Your task to perform on an android device: Clear all items from cart on amazon. Add "bose quietcomfort 35" to the cart on amazon, then select checkout. Image 0: 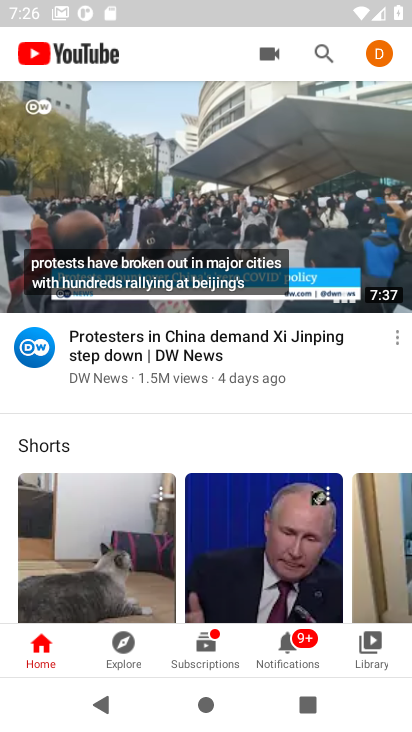
Step 0: press home button
Your task to perform on an android device: Clear all items from cart on amazon. Add "bose quietcomfort 35" to the cart on amazon, then select checkout. Image 1: 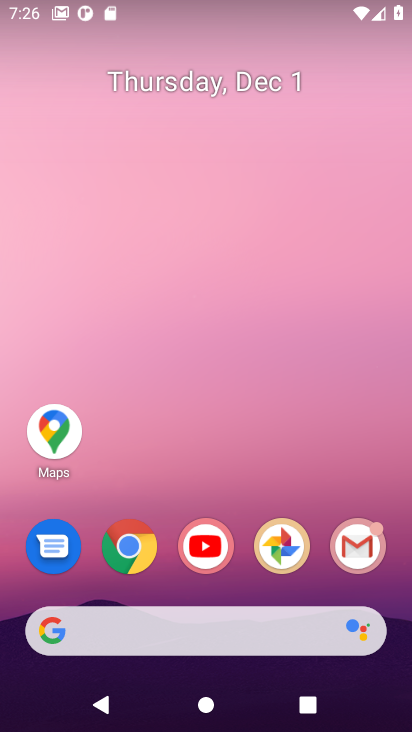
Step 1: click (126, 550)
Your task to perform on an android device: Clear all items from cart on amazon. Add "bose quietcomfort 35" to the cart on amazon, then select checkout. Image 2: 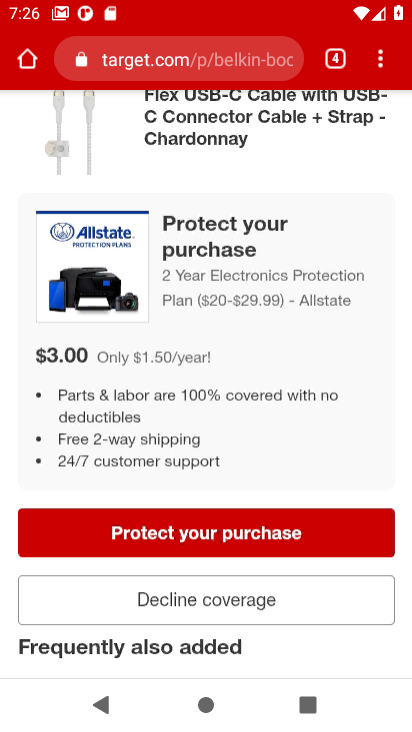
Step 2: click (178, 62)
Your task to perform on an android device: Clear all items from cart on amazon. Add "bose quietcomfort 35" to the cart on amazon, then select checkout. Image 3: 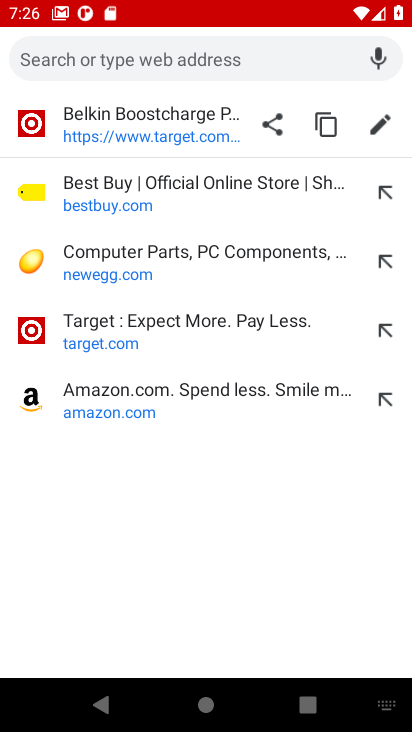
Step 3: click (95, 395)
Your task to perform on an android device: Clear all items from cart on amazon. Add "bose quietcomfort 35" to the cart on amazon, then select checkout. Image 4: 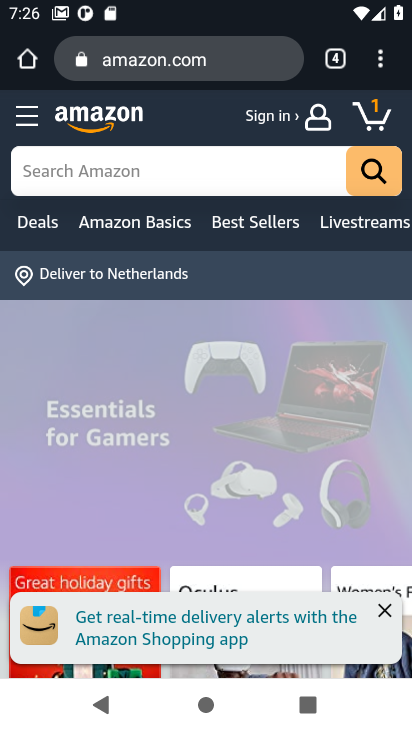
Step 4: click (375, 119)
Your task to perform on an android device: Clear all items from cart on amazon. Add "bose quietcomfort 35" to the cart on amazon, then select checkout. Image 5: 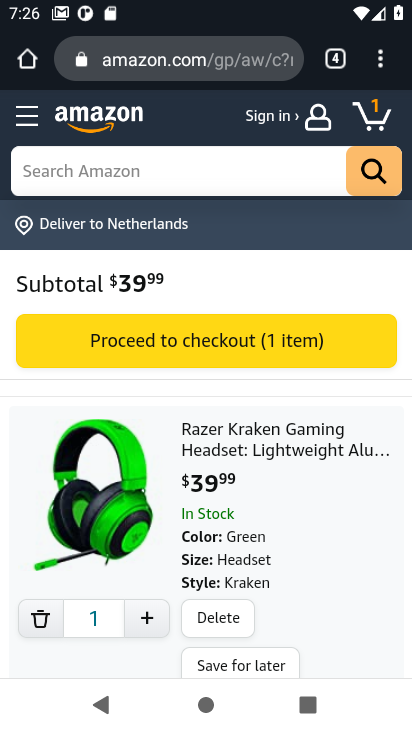
Step 5: drag from (295, 531) to (315, 313)
Your task to perform on an android device: Clear all items from cart on amazon. Add "bose quietcomfort 35" to the cart on amazon, then select checkout. Image 6: 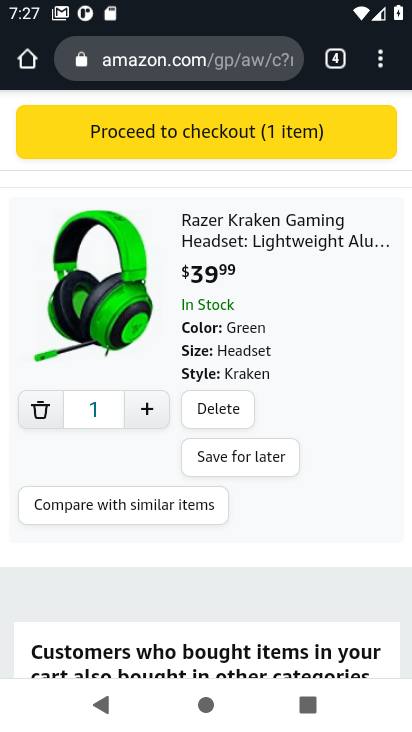
Step 6: click (216, 408)
Your task to perform on an android device: Clear all items from cart on amazon. Add "bose quietcomfort 35" to the cart on amazon, then select checkout. Image 7: 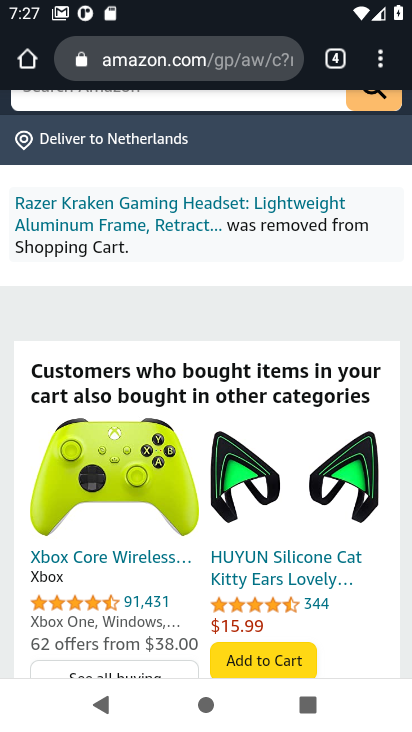
Step 7: drag from (110, 256) to (137, 505)
Your task to perform on an android device: Clear all items from cart on amazon. Add "bose quietcomfort 35" to the cart on amazon, then select checkout. Image 8: 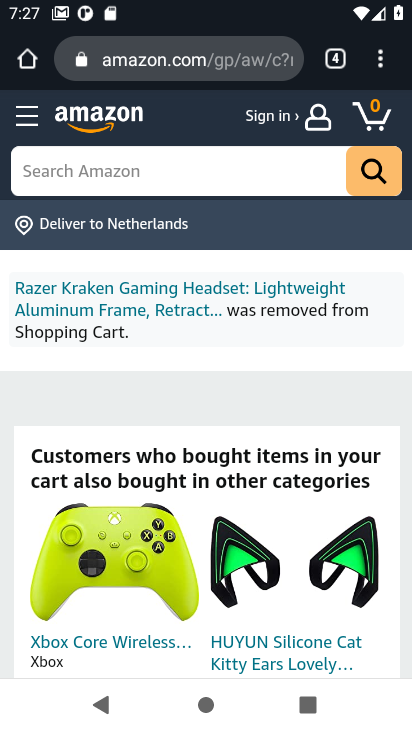
Step 8: click (63, 178)
Your task to perform on an android device: Clear all items from cart on amazon. Add "bose quietcomfort 35" to the cart on amazon, then select checkout. Image 9: 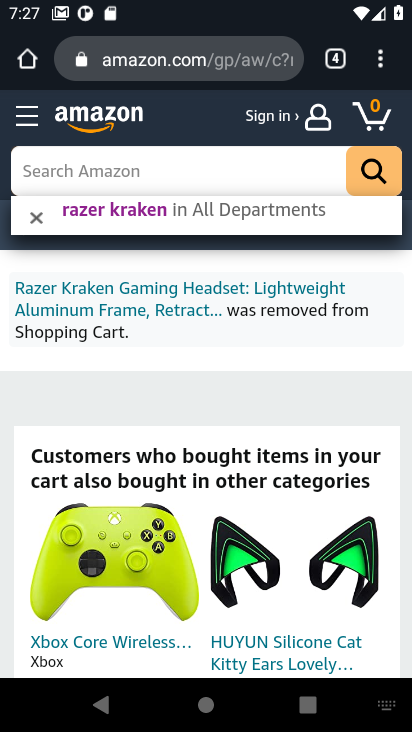
Step 9: type "bose quietcomfort 35"
Your task to perform on an android device: Clear all items from cart on amazon. Add "bose quietcomfort 35" to the cart on amazon, then select checkout. Image 10: 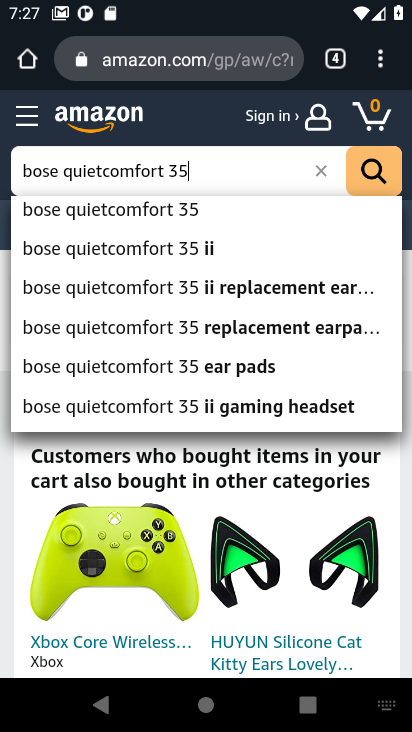
Step 10: click (149, 209)
Your task to perform on an android device: Clear all items from cart on amazon. Add "bose quietcomfort 35" to the cart on amazon, then select checkout. Image 11: 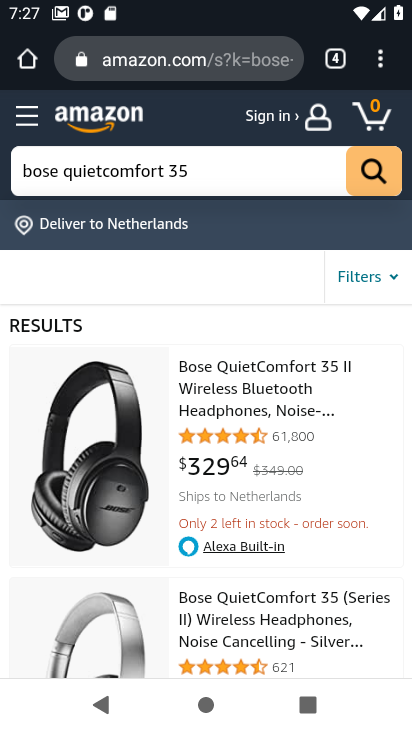
Step 11: drag from (194, 440) to (208, 346)
Your task to perform on an android device: Clear all items from cart on amazon. Add "bose quietcomfort 35" to the cart on amazon, then select checkout. Image 12: 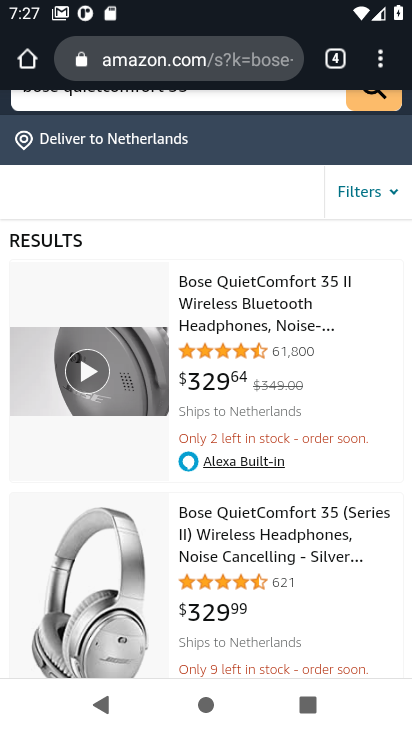
Step 12: click (213, 340)
Your task to perform on an android device: Clear all items from cart on amazon. Add "bose quietcomfort 35" to the cart on amazon, then select checkout. Image 13: 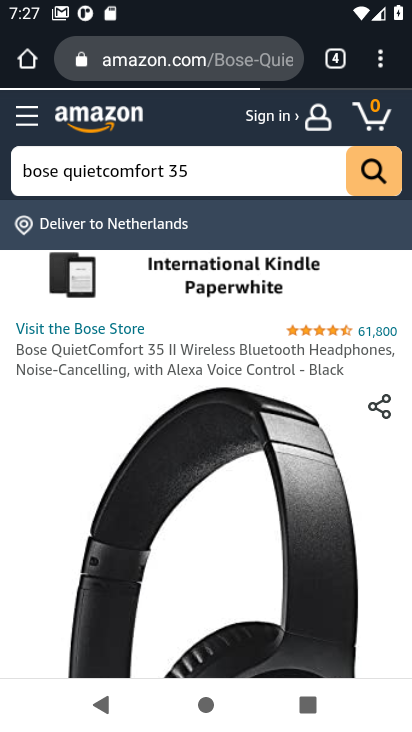
Step 13: drag from (160, 513) to (182, 298)
Your task to perform on an android device: Clear all items from cart on amazon. Add "bose quietcomfort 35" to the cart on amazon, then select checkout. Image 14: 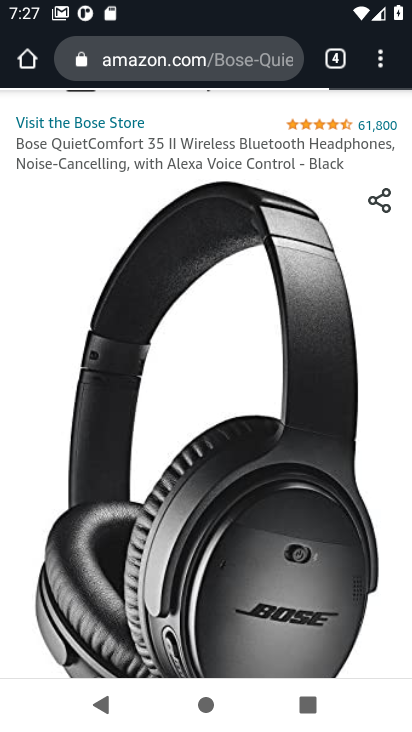
Step 14: drag from (169, 508) to (183, 269)
Your task to perform on an android device: Clear all items from cart on amazon. Add "bose quietcomfort 35" to the cart on amazon, then select checkout. Image 15: 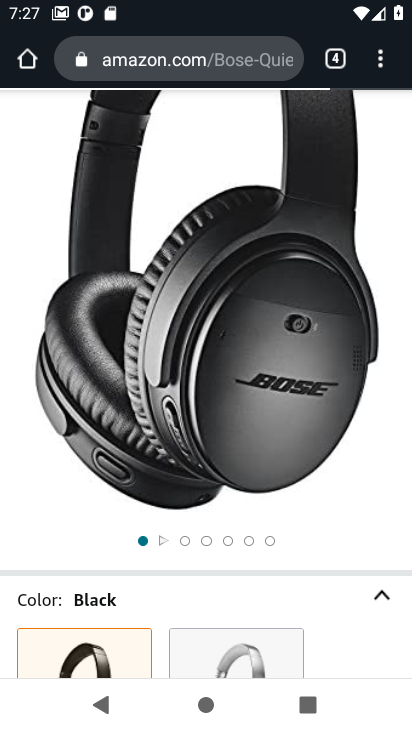
Step 15: drag from (166, 491) to (150, 249)
Your task to perform on an android device: Clear all items from cart on amazon. Add "bose quietcomfort 35" to the cart on amazon, then select checkout. Image 16: 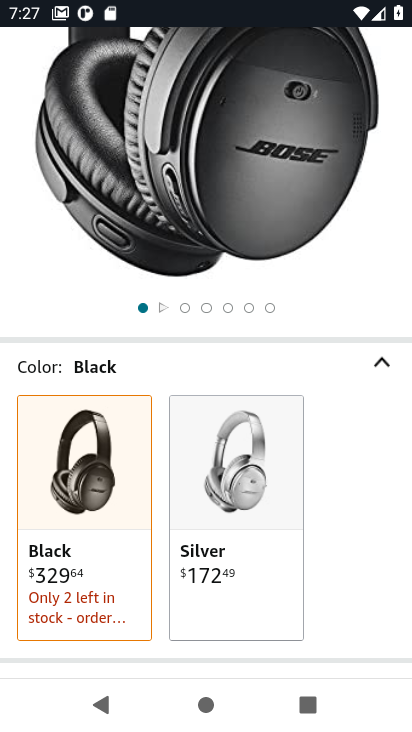
Step 16: drag from (178, 505) to (182, 265)
Your task to perform on an android device: Clear all items from cart on amazon. Add "bose quietcomfort 35" to the cart on amazon, then select checkout. Image 17: 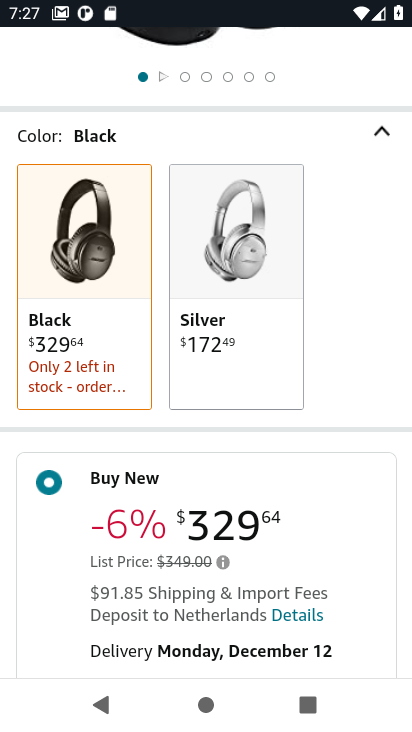
Step 17: drag from (203, 548) to (192, 223)
Your task to perform on an android device: Clear all items from cart on amazon. Add "bose quietcomfort 35" to the cart on amazon, then select checkout. Image 18: 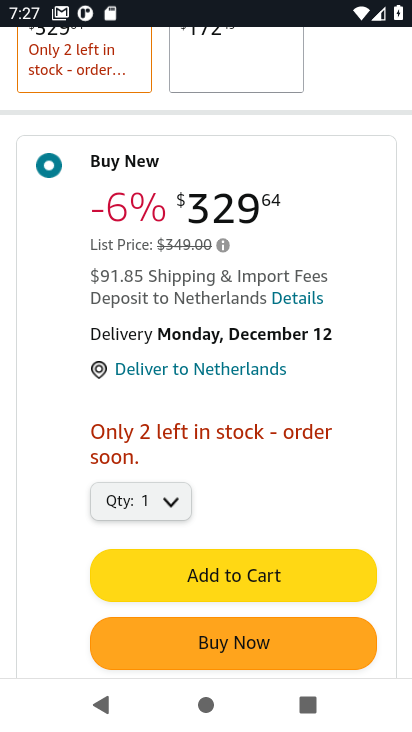
Step 18: click (212, 580)
Your task to perform on an android device: Clear all items from cart on amazon. Add "bose quietcomfort 35" to the cart on amazon, then select checkout. Image 19: 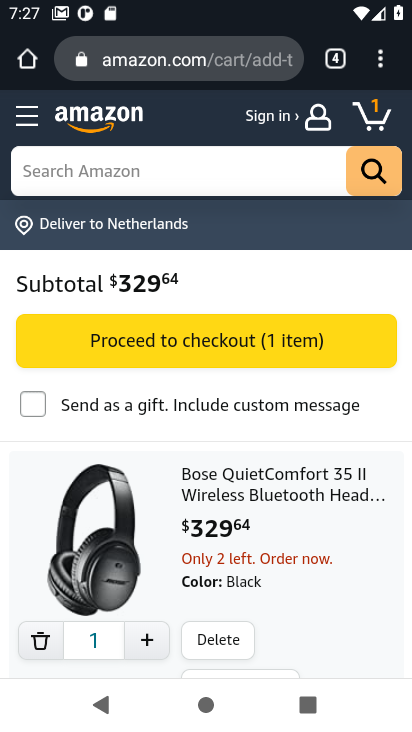
Step 19: click (204, 331)
Your task to perform on an android device: Clear all items from cart on amazon. Add "bose quietcomfort 35" to the cart on amazon, then select checkout. Image 20: 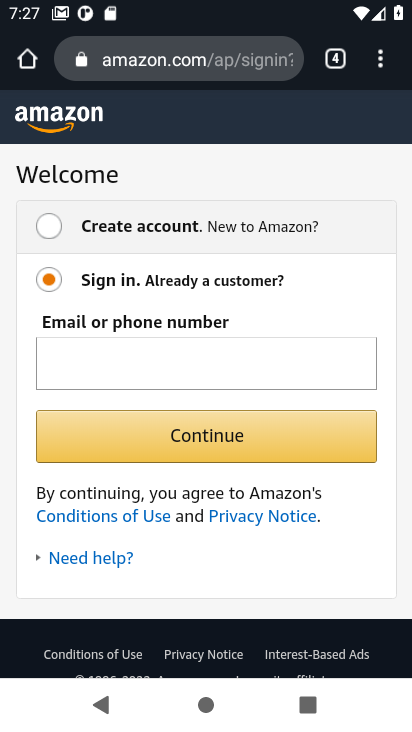
Step 20: task complete